Your task to perform on an android device: toggle javascript in the chrome app Image 0: 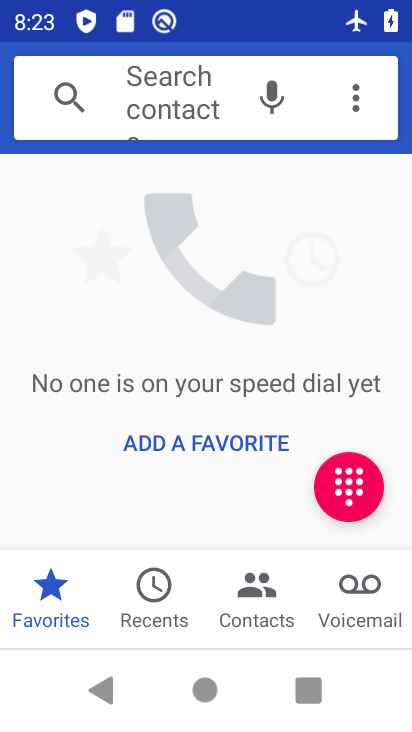
Step 0: press home button
Your task to perform on an android device: toggle javascript in the chrome app Image 1: 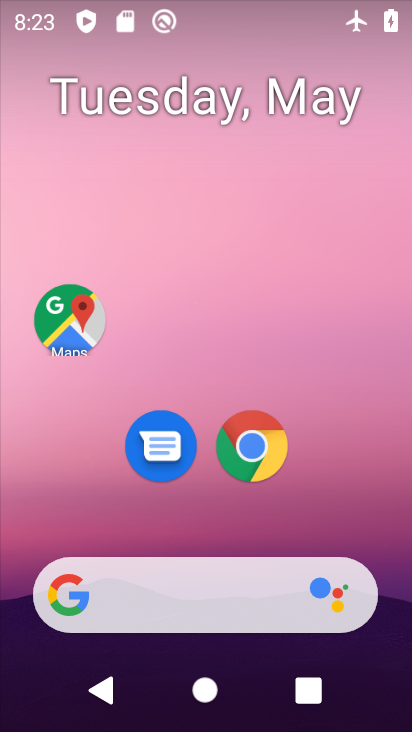
Step 1: drag from (378, 553) to (389, 241)
Your task to perform on an android device: toggle javascript in the chrome app Image 2: 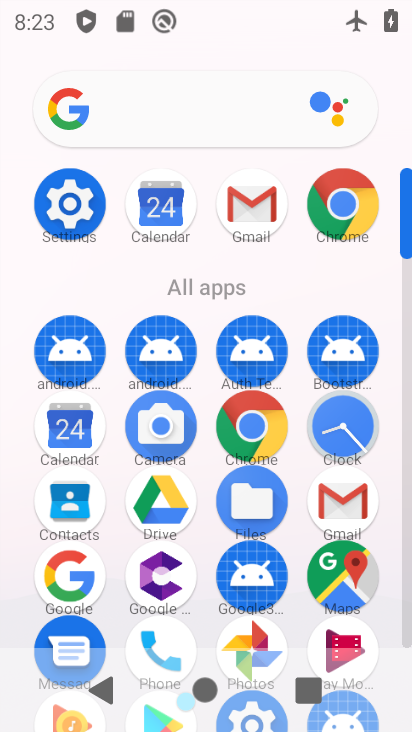
Step 2: click (275, 445)
Your task to perform on an android device: toggle javascript in the chrome app Image 3: 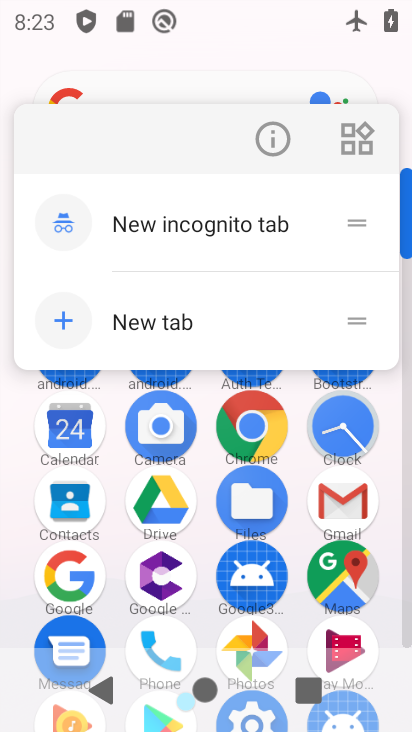
Step 3: click (275, 445)
Your task to perform on an android device: toggle javascript in the chrome app Image 4: 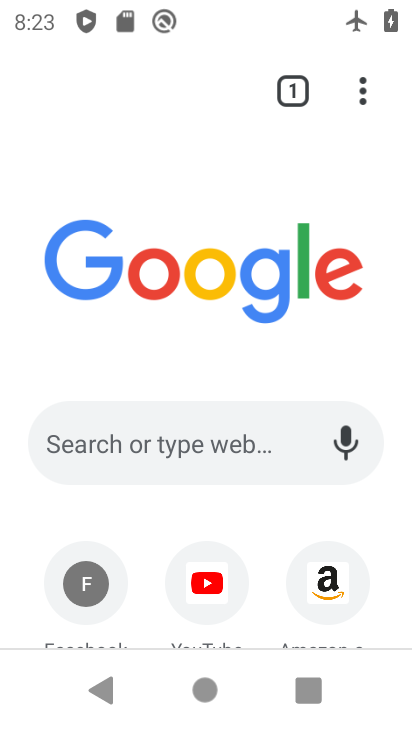
Step 4: click (361, 102)
Your task to perform on an android device: toggle javascript in the chrome app Image 5: 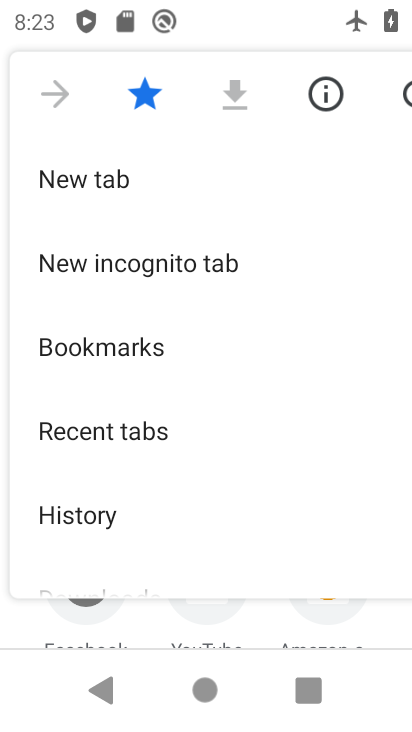
Step 5: drag from (335, 398) to (332, 336)
Your task to perform on an android device: toggle javascript in the chrome app Image 6: 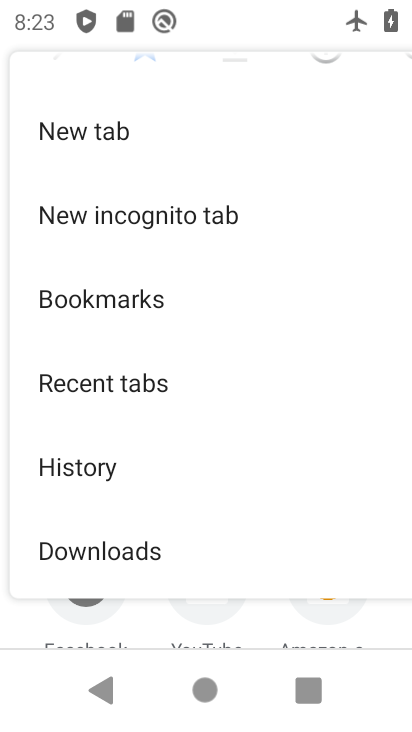
Step 6: drag from (304, 449) to (317, 374)
Your task to perform on an android device: toggle javascript in the chrome app Image 7: 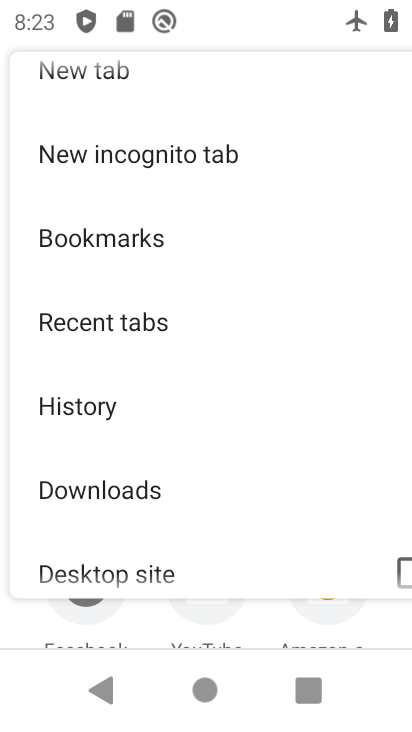
Step 7: drag from (314, 455) to (329, 365)
Your task to perform on an android device: toggle javascript in the chrome app Image 8: 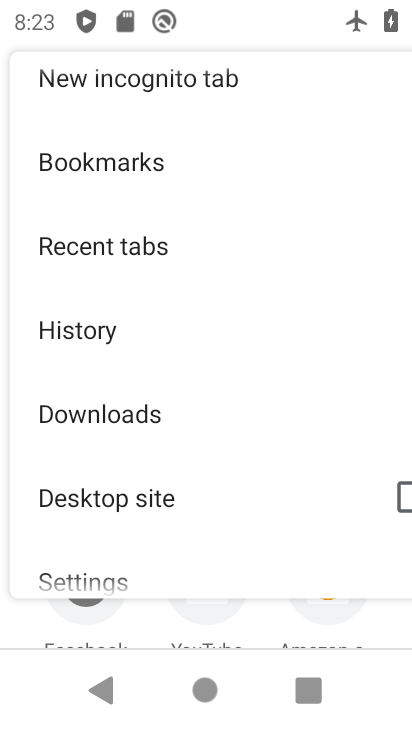
Step 8: drag from (315, 458) to (322, 384)
Your task to perform on an android device: toggle javascript in the chrome app Image 9: 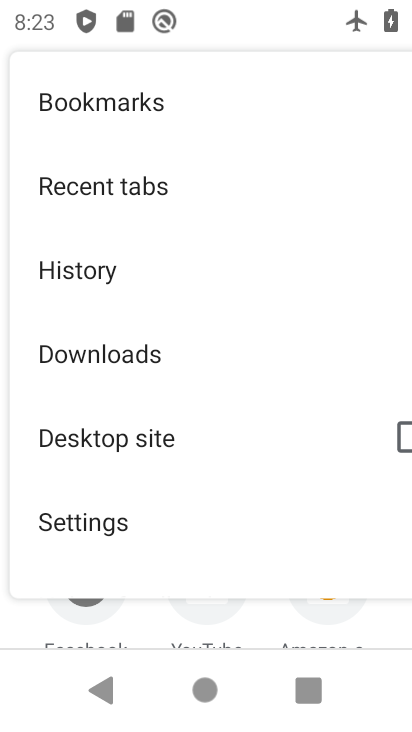
Step 9: drag from (304, 472) to (317, 374)
Your task to perform on an android device: toggle javascript in the chrome app Image 10: 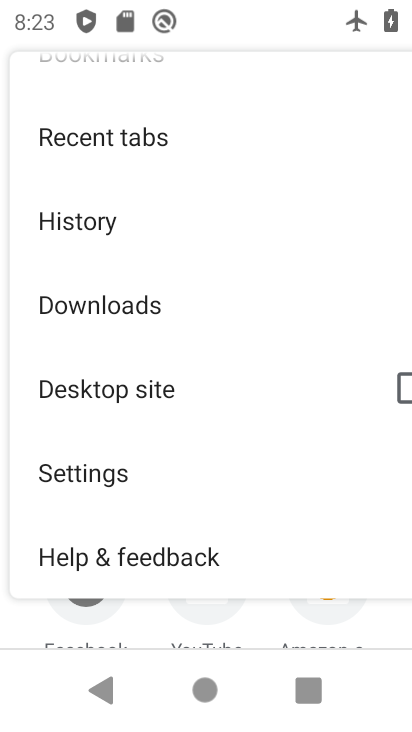
Step 10: drag from (299, 491) to (315, 393)
Your task to perform on an android device: toggle javascript in the chrome app Image 11: 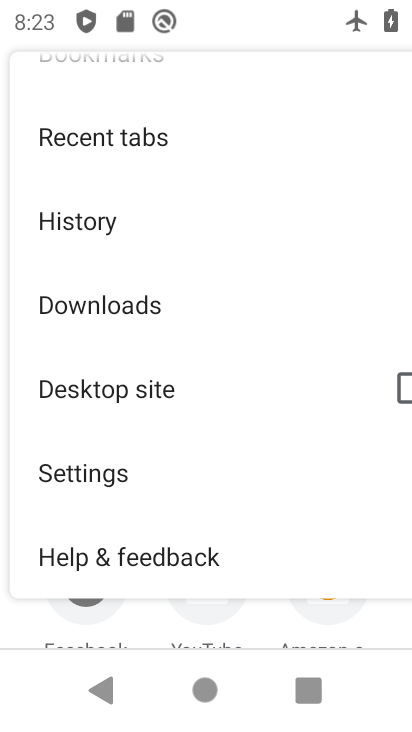
Step 11: click (227, 484)
Your task to perform on an android device: toggle javascript in the chrome app Image 12: 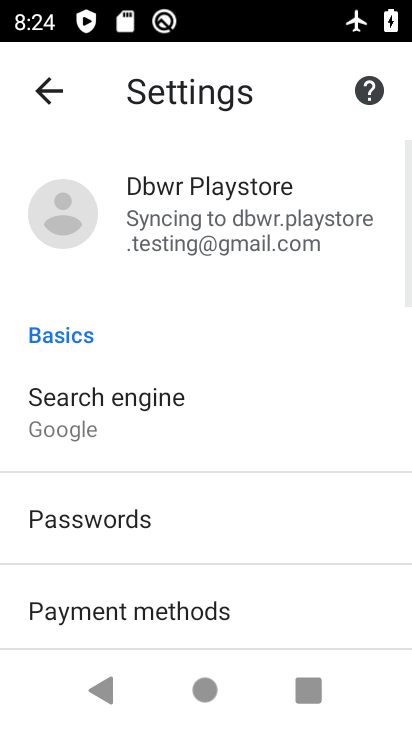
Step 12: drag from (312, 528) to (327, 487)
Your task to perform on an android device: toggle javascript in the chrome app Image 13: 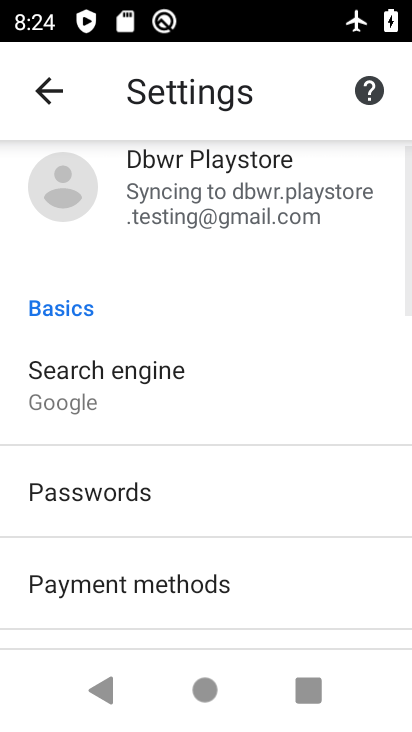
Step 13: drag from (312, 539) to (321, 494)
Your task to perform on an android device: toggle javascript in the chrome app Image 14: 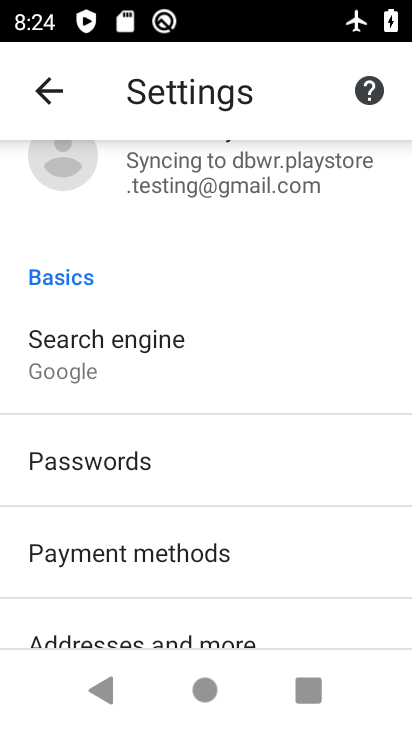
Step 14: drag from (305, 562) to (315, 509)
Your task to perform on an android device: toggle javascript in the chrome app Image 15: 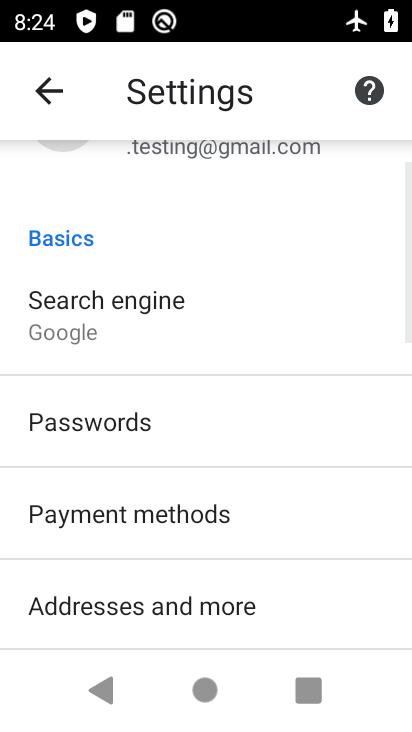
Step 15: drag from (310, 565) to (323, 508)
Your task to perform on an android device: toggle javascript in the chrome app Image 16: 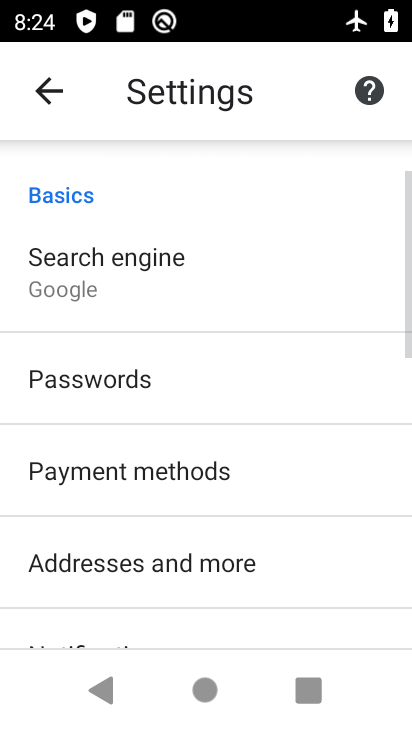
Step 16: drag from (326, 544) to (338, 500)
Your task to perform on an android device: toggle javascript in the chrome app Image 17: 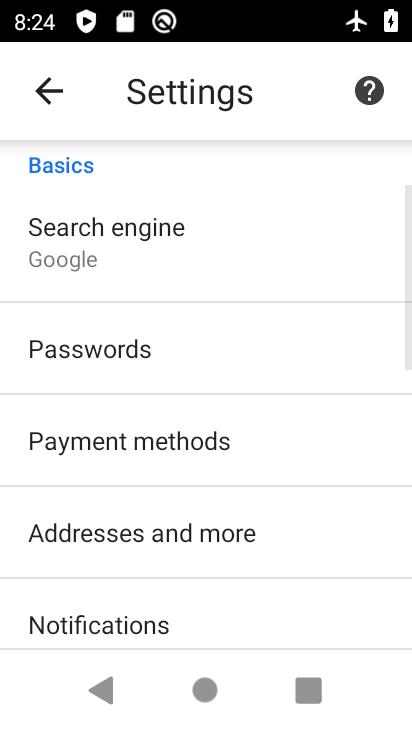
Step 17: drag from (323, 567) to (339, 498)
Your task to perform on an android device: toggle javascript in the chrome app Image 18: 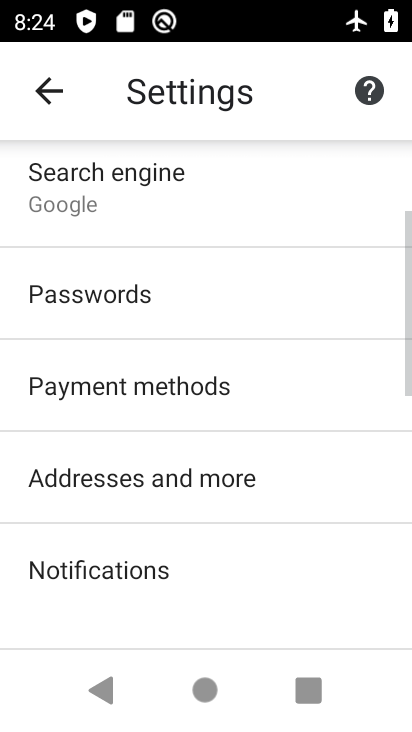
Step 18: drag from (333, 581) to (346, 520)
Your task to perform on an android device: toggle javascript in the chrome app Image 19: 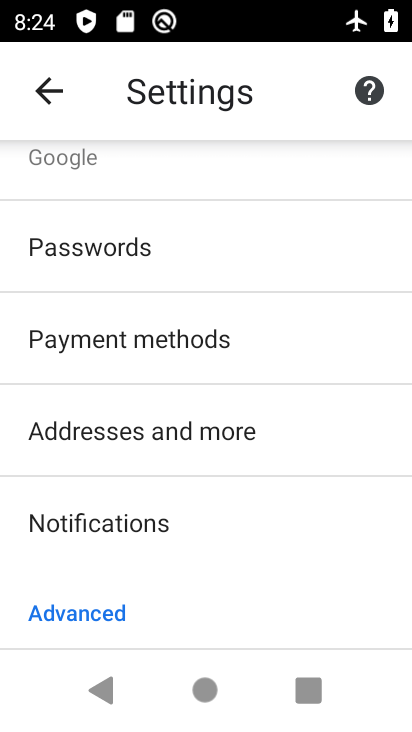
Step 19: drag from (347, 565) to (346, 512)
Your task to perform on an android device: toggle javascript in the chrome app Image 20: 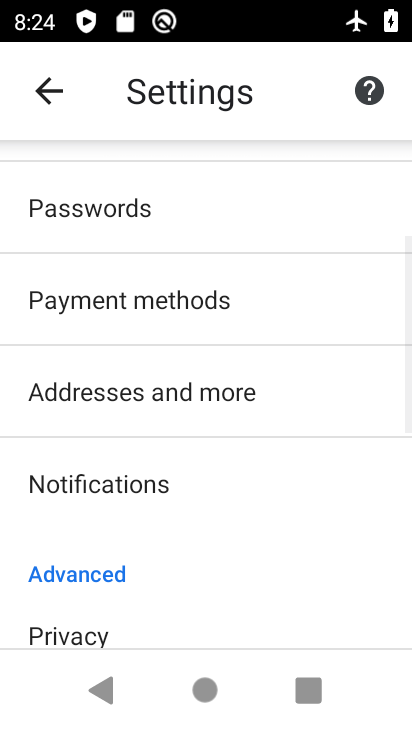
Step 20: drag from (337, 591) to (337, 527)
Your task to perform on an android device: toggle javascript in the chrome app Image 21: 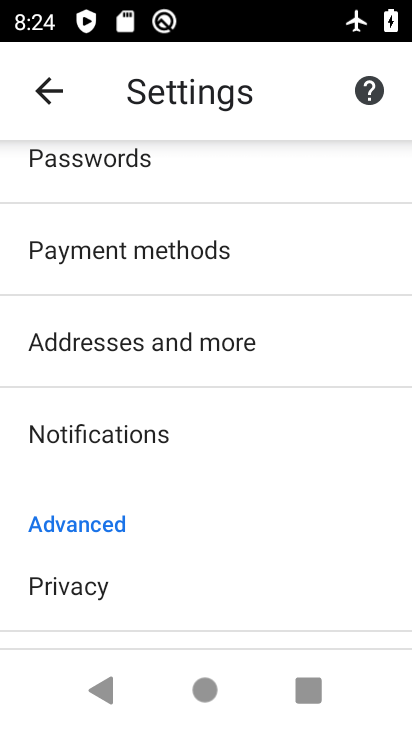
Step 21: drag from (323, 590) to (340, 514)
Your task to perform on an android device: toggle javascript in the chrome app Image 22: 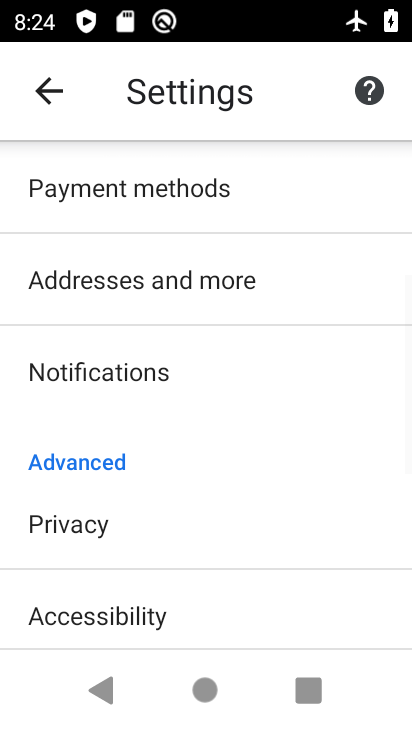
Step 22: drag from (329, 597) to (338, 529)
Your task to perform on an android device: toggle javascript in the chrome app Image 23: 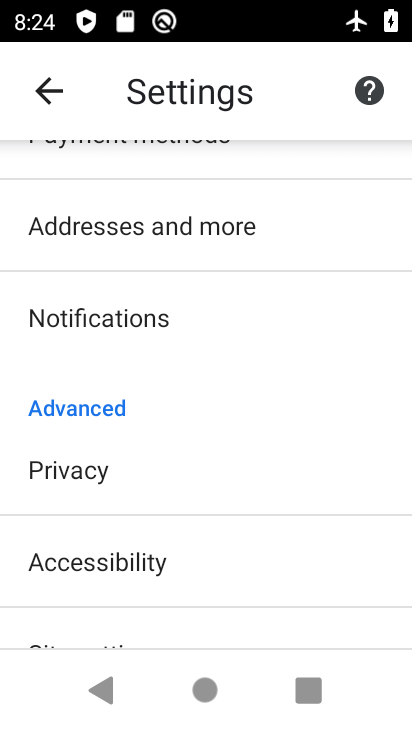
Step 23: drag from (340, 590) to (352, 516)
Your task to perform on an android device: toggle javascript in the chrome app Image 24: 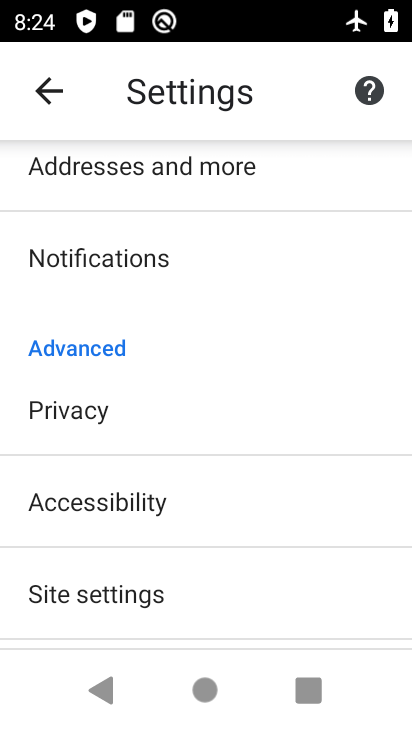
Step 24: drag from (329, 578) to (334, 496)
Your task to perform on an android device: toggle javascript in the chrome app Image 25: 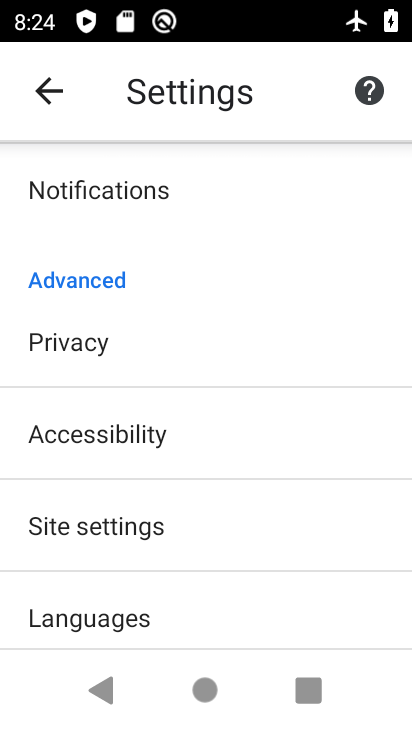
Step 25: click (303, 537)
Your task to perform on an android device: toggle javascript in the chrome app Image 26: 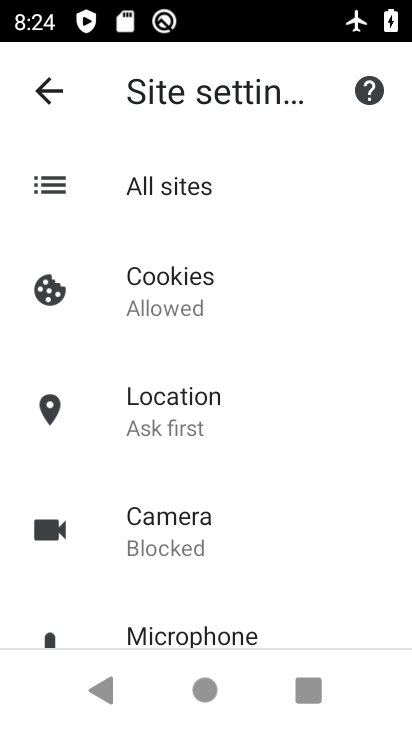
Step 26: drag from (303, 551) to (313, 498)
Your task to perform on an android device: toggle javascript in the chrome app Image 27: 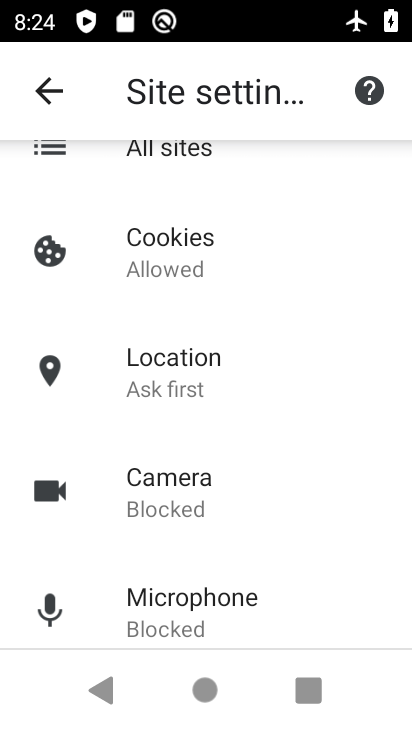
Step 27: drag from (333, 599) to (342, 505)
Your task to perform on an android device: toggle javascript in the chrome app Image 28: 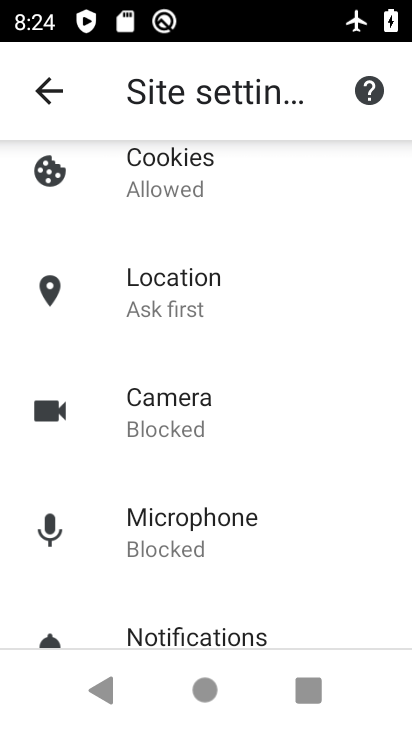
Step 28: drag from (341, 601) to (348, 526)
Your task to perform on an android device: toggle javascript in the chrome app Image 29: 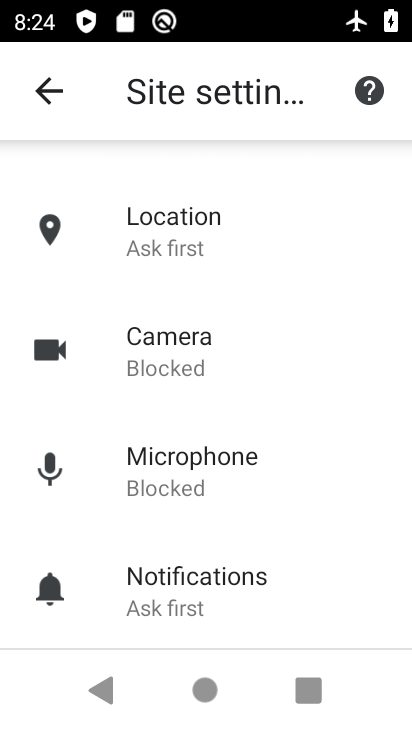
Step 29: drag from (333, 592) to (339, 516)
Your task to perform on an android device: toggle javascript in the chrome app Image 30: 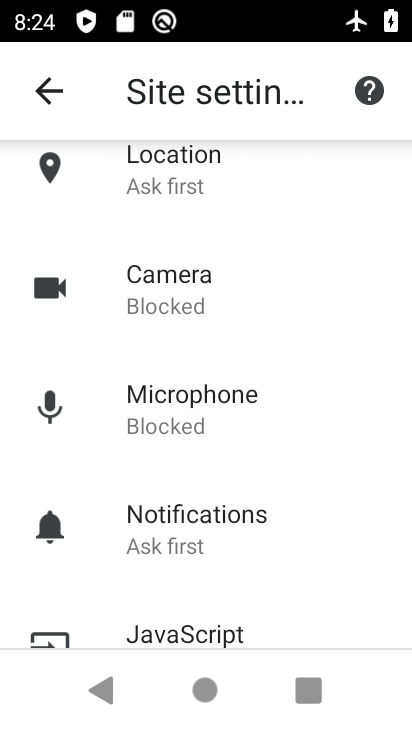
Step 30: drag from (327, 588) to (332, 508)
Your task to perform on an android device: toggle javascript in the chrome app Image 31: 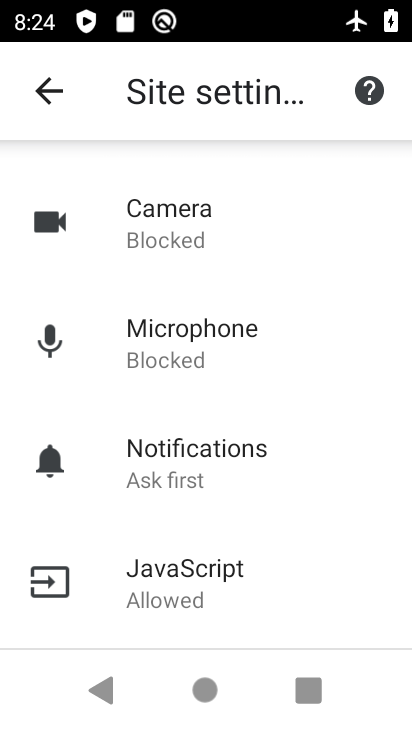
Step 31: click (274, 598)
Your task to perform on an android device: toggle javascript in the chrome app Image 32: 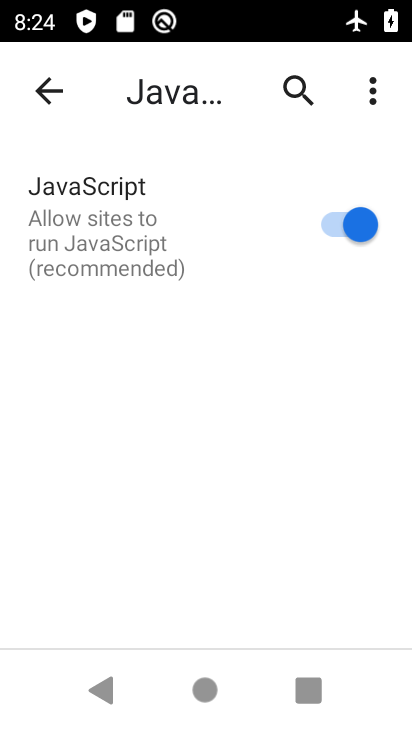
Step 32: click (359, 229)
Your task to perform on an android device: toggle javascript in the chrome app Image 33: 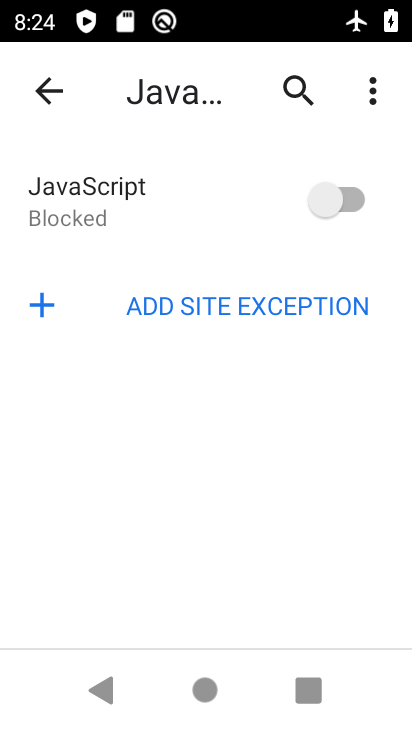
Step 33: task complete